Your task to perform on an android device: Search for flights from Mexico city to Sydney Image 0: 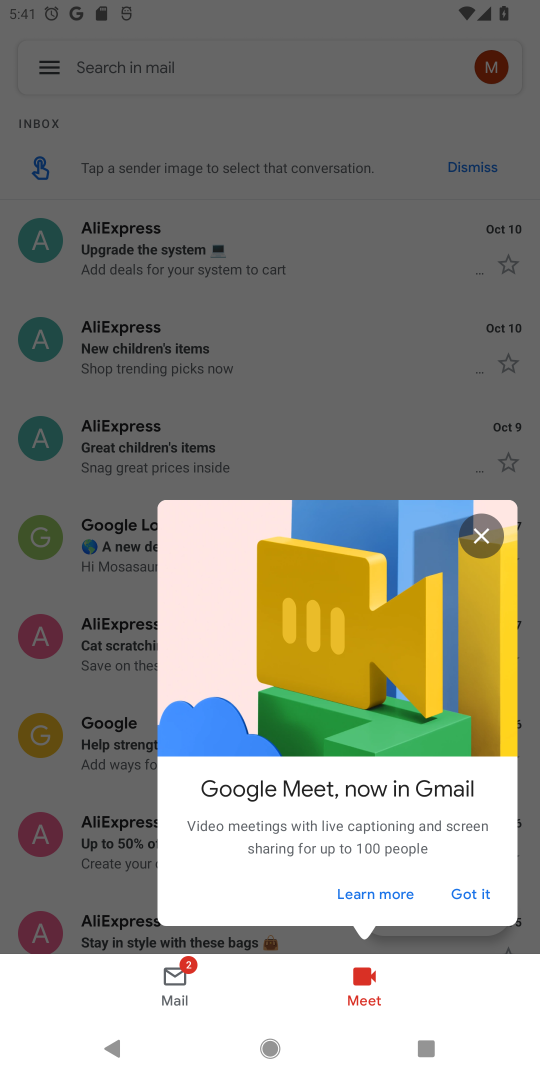
Step 0: click (485, 525)
Your task to perform on an android device: Search for flights from Mexico city to Sydney Image 1: 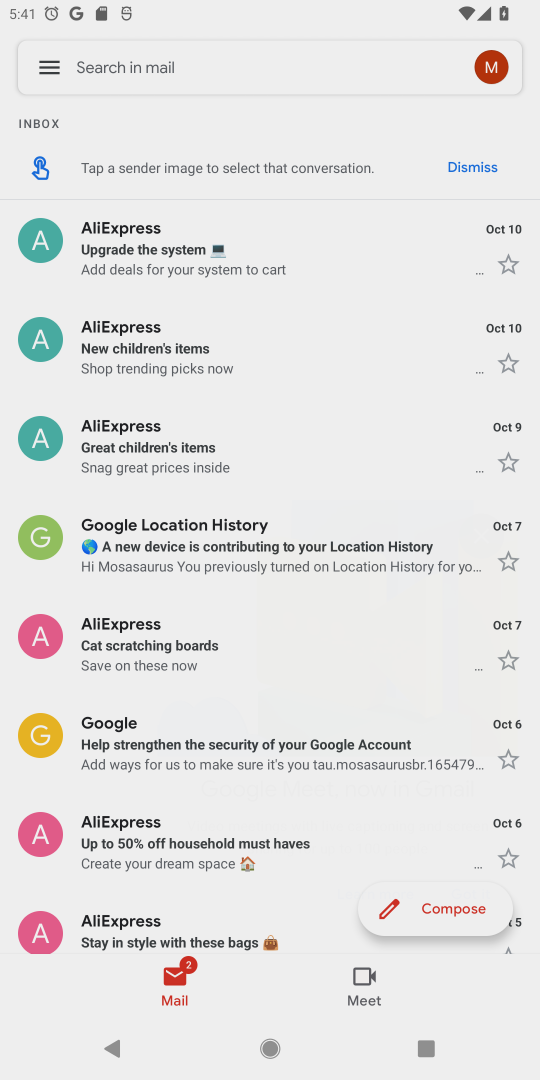
Step 1: press home button
Your task to perform on an android device: Search for flights from Mexico city to Sydney Image 2: 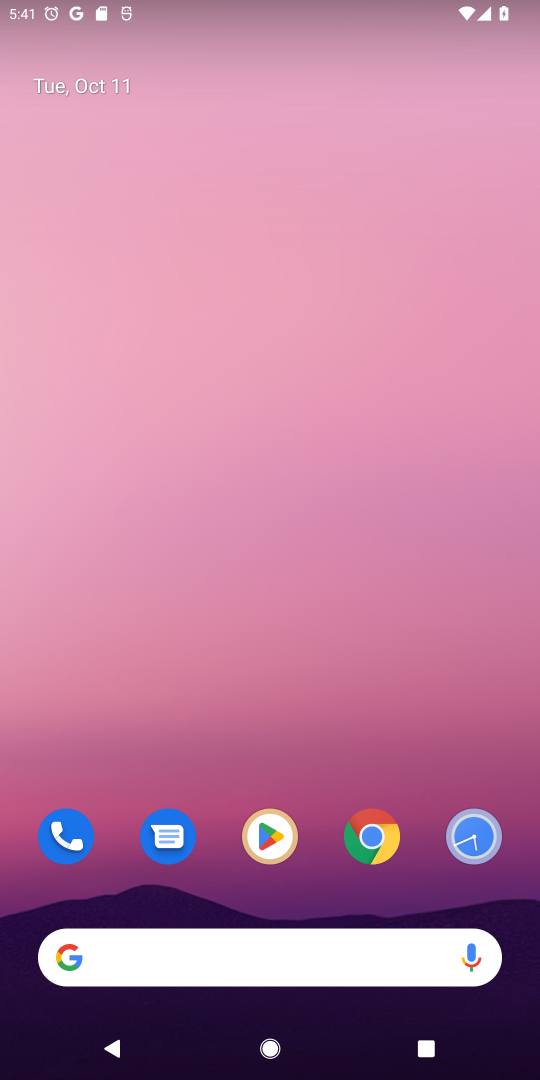
Step 2: click (351, 973)
Your task to perform on an android device: Search for flights from Mexico city to Sydney Image 3: 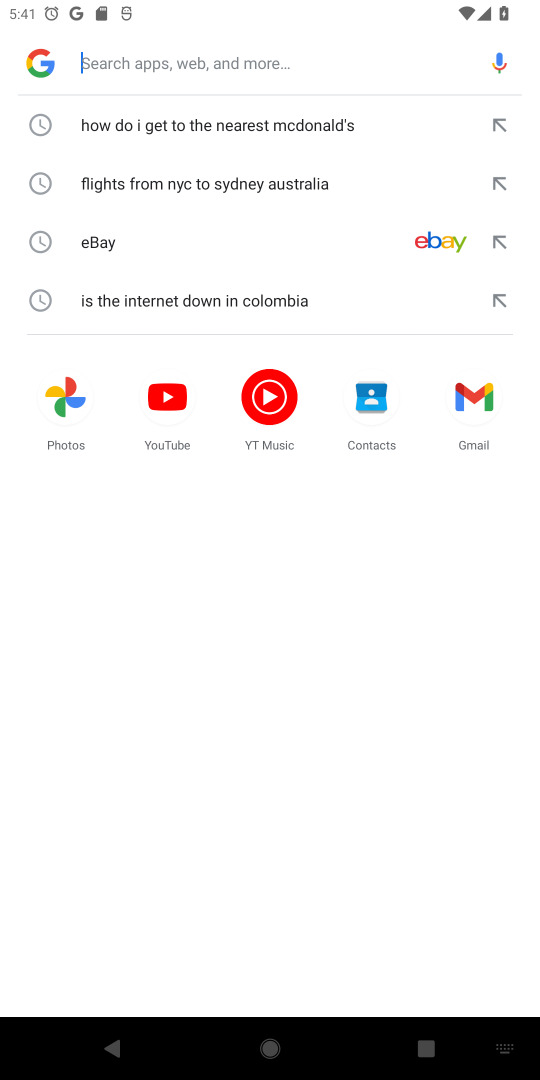
Step 3: type "Search for flights from Mexico city to Sydney"
Your task to perform on an android device: Search for flights from Mexico city to Sydney Image 4: 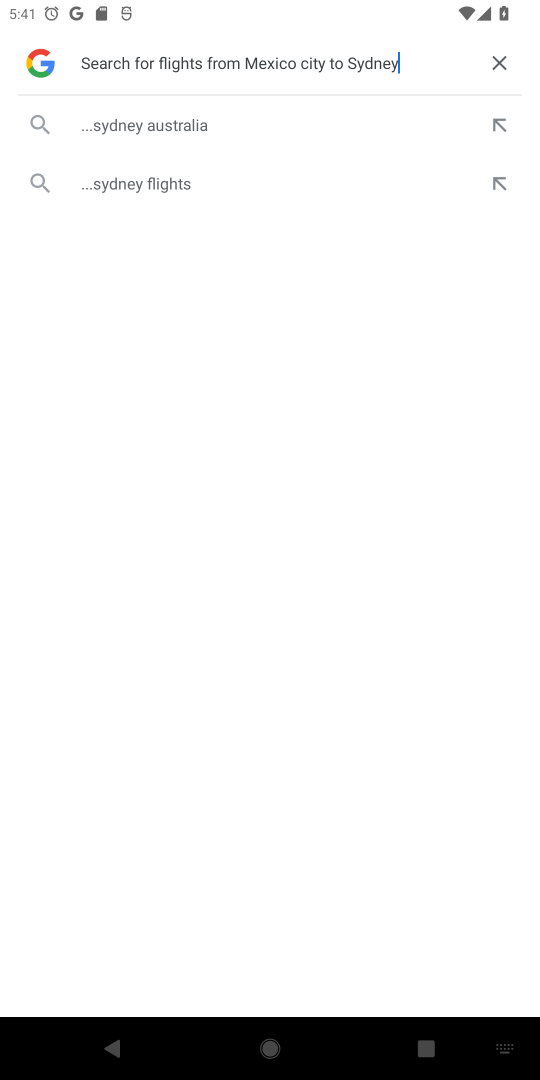
Step 4: click (249, 137)
Your task to perform on an android device: Search for flights from Mexico city to Sydney Image 5: 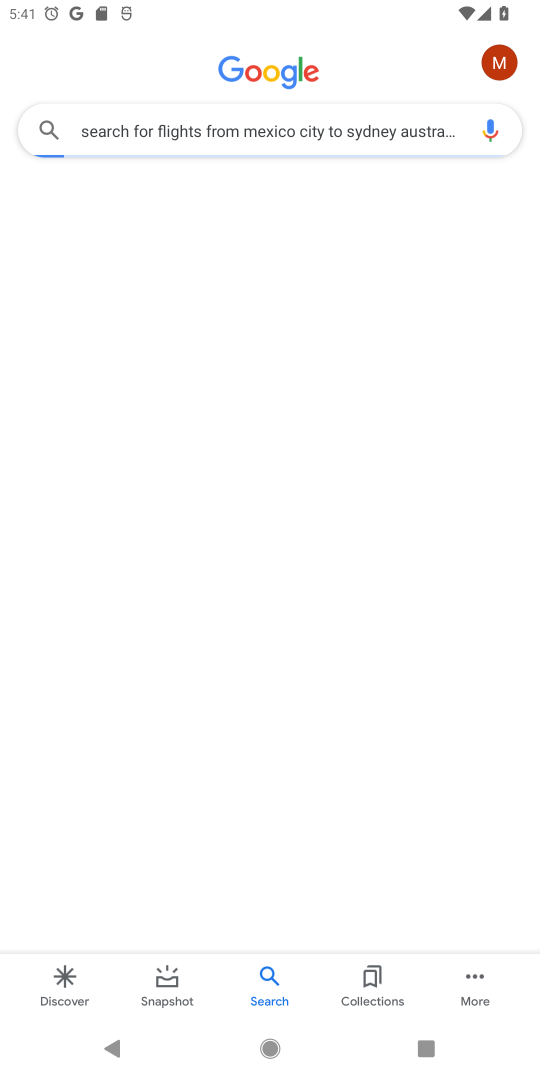
Step 5: task complete